Your task to perform on an android device: Go to Amazon Image 0: 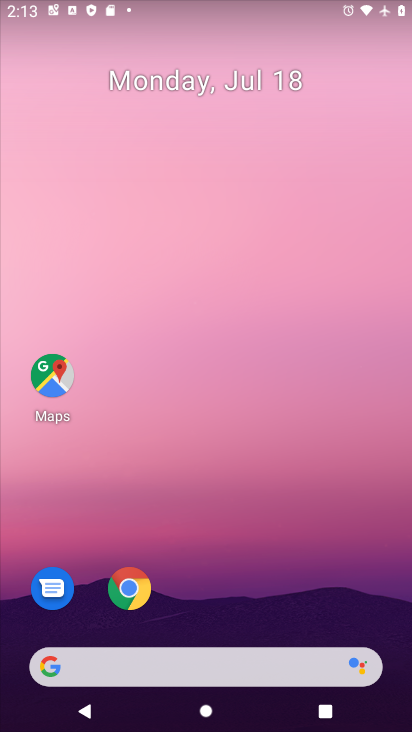
Step 0: drag from (245, 635) to (262, 273)
Your task to perform on an android device: Go to Amazon Image 1: 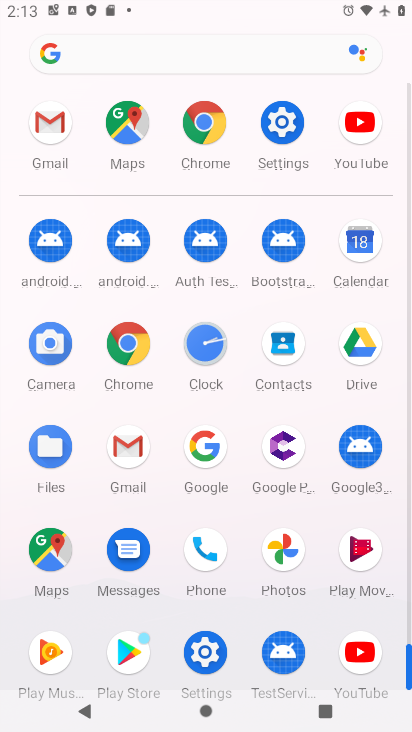
Step 1: click (209, 138)
Your task to perform on an android device: Go to Amazon Image 2: 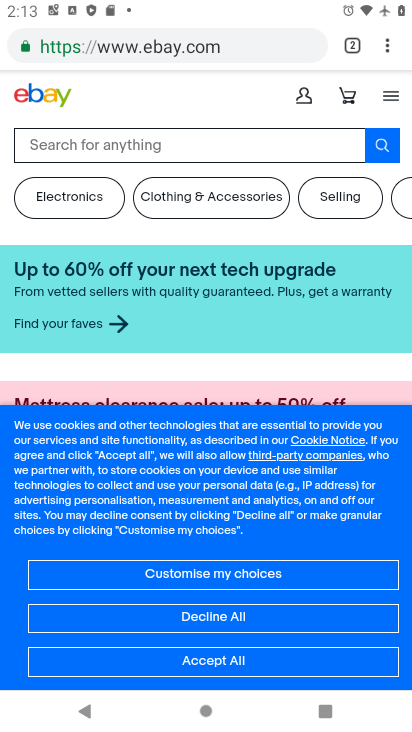
Step 2: click (245, 56)
Your task to perform on an android device: Go to Amazon Image 3: 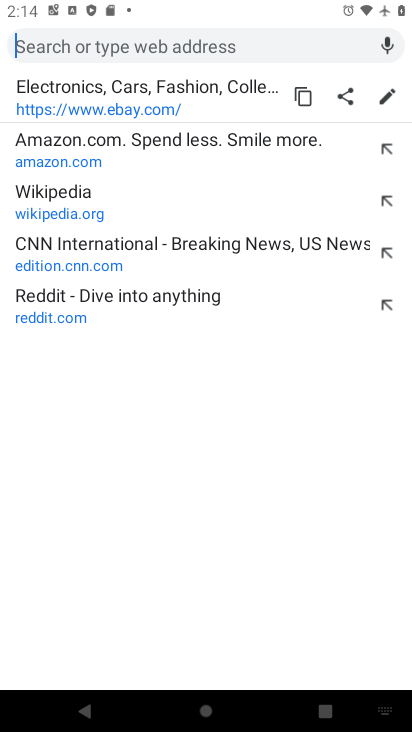
Step 3: type "amazon"
Your task to perform on an android device: Go to Amazon Image 4: 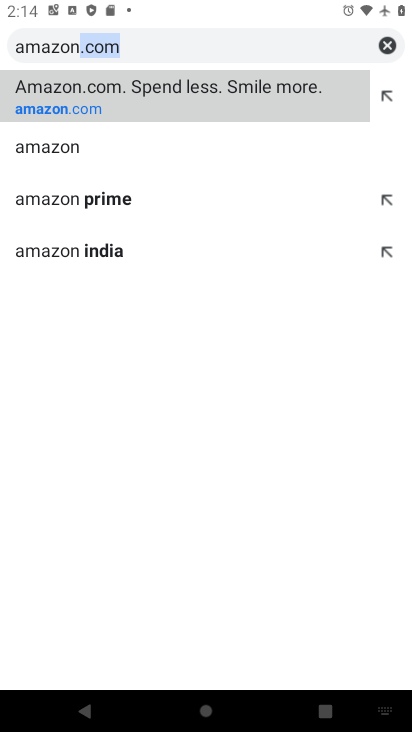
Step 4: click (132, 97)
Your task to perform on an android device: Go to Amazon Image 5: 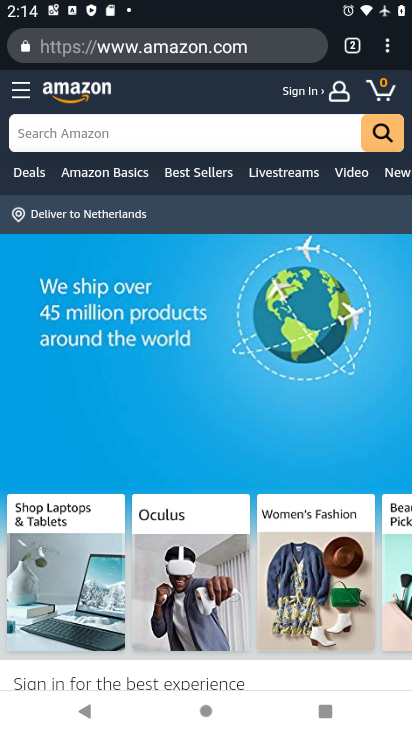
Step 5: task complete